Your task to perform on an android device: uninstall "Calculator" Image 0: 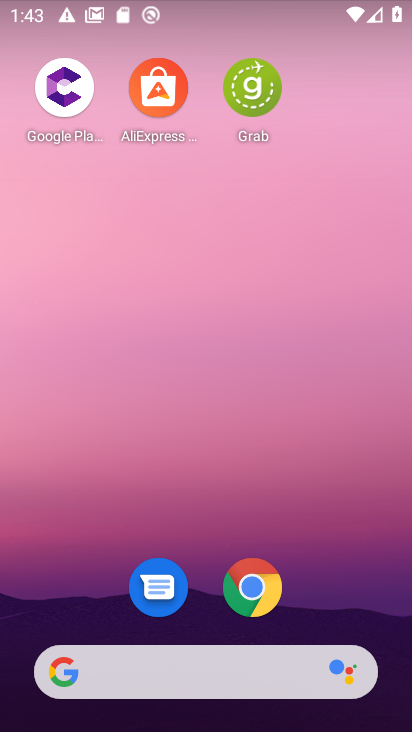
Step 0: drag from (199, 453) to (250, 103)
Your task to perform on an android device: uninstall "Calculator" Image 1: 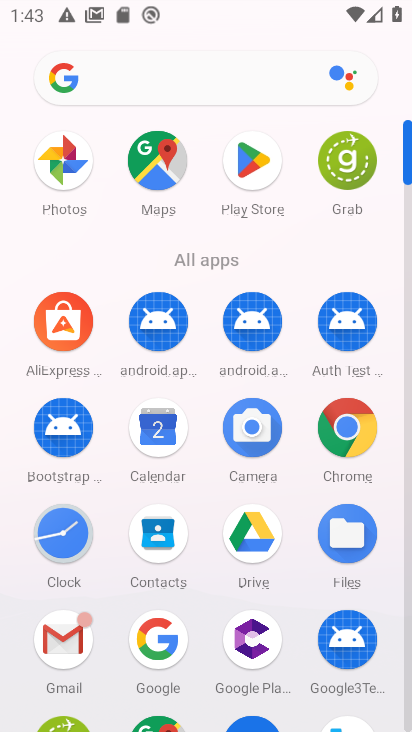
Step 1: click (256, 187)
Your task to perform on an android device: uninstall "Calculator" Image 2: 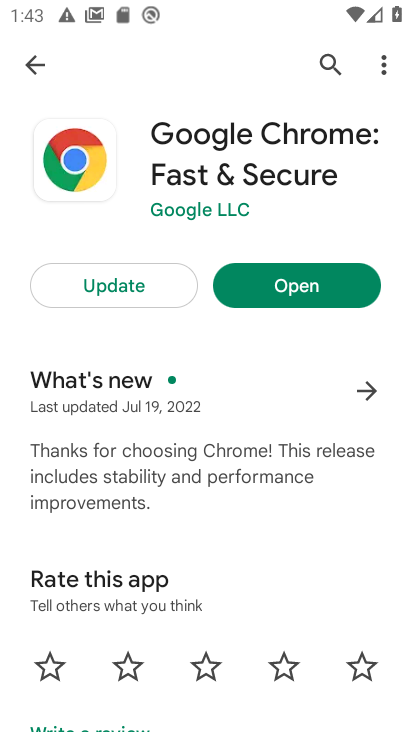
Step 2: click (326, 60)
Your task to perform on an android device: uninstall "Calculator" Image 3: 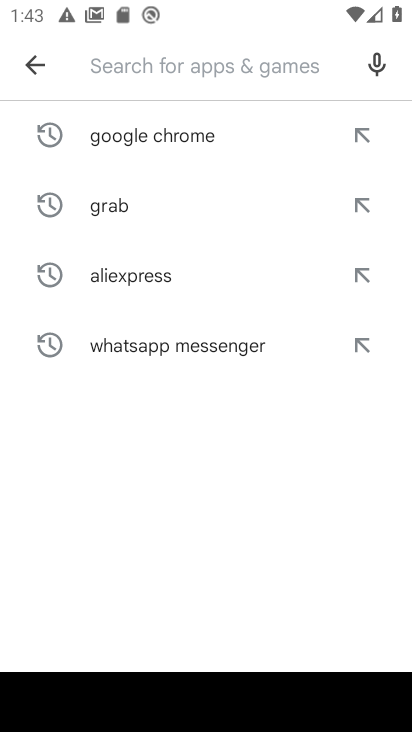
Step 3: type "Calculator"
Your task to perform on an android device: uninstall "Calculator" Image 4: 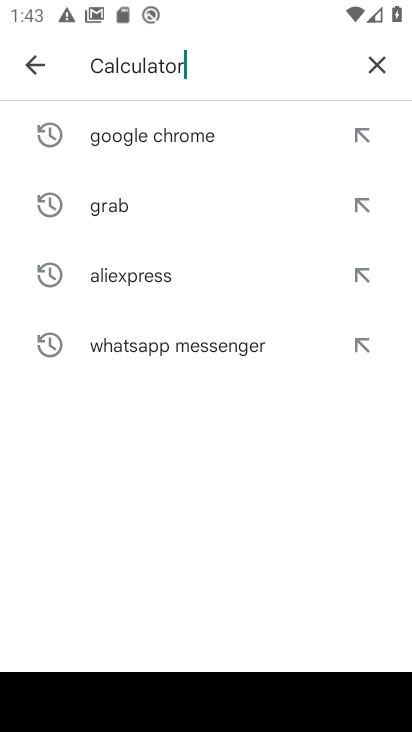
Step 4: type ""
Your task to perform on an android device: uninstall "Calculator" Image 5: 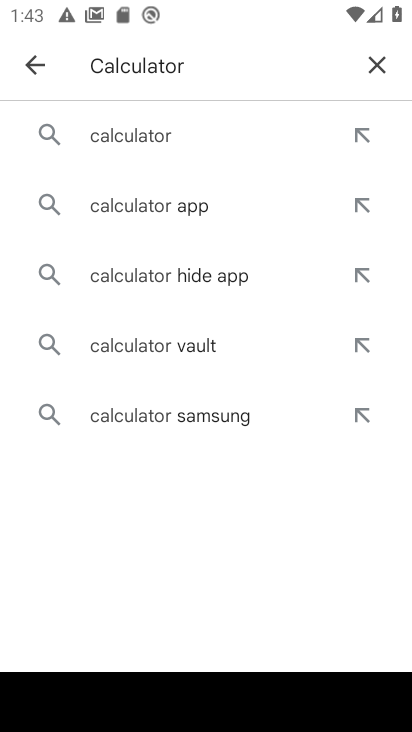
Step 5: click (160, 124)
Your task to perform on an android device: uninstall "Calculator" Image 6: 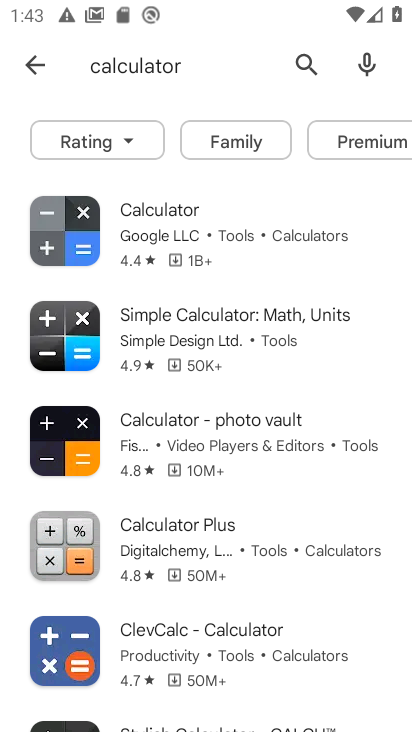
Step 6: click (213, 202)
Your task to perform on an android device: uninstall "Calculator" Image 7: 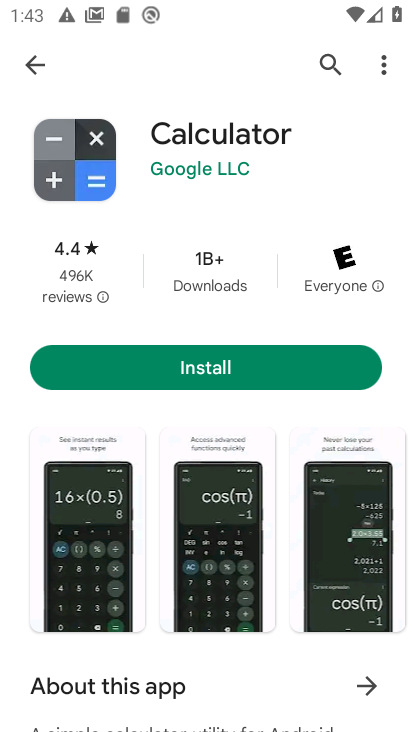
Step 7: task complete